Your task to perform on an android device: refresh tabs in the chrome app Image 0: 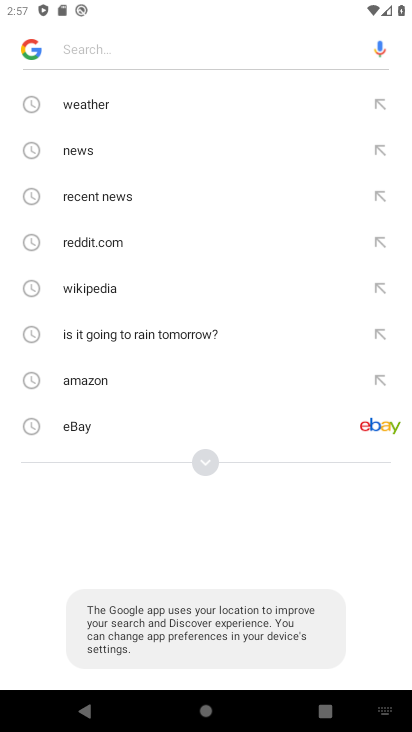
Step 0: press home button
Your task to perform on an android device: refresh tabs in the chrome app Image 1: 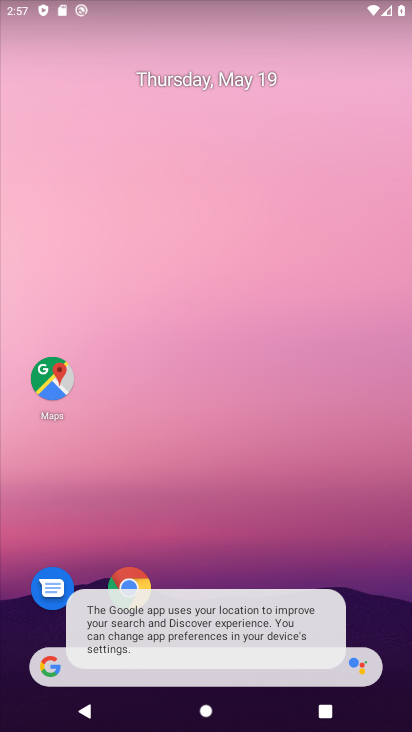
Step 1: drag from (386, 586) to (314, 78)
Your task to perform on an android device: refresh tabs in the chrome app Image 2: 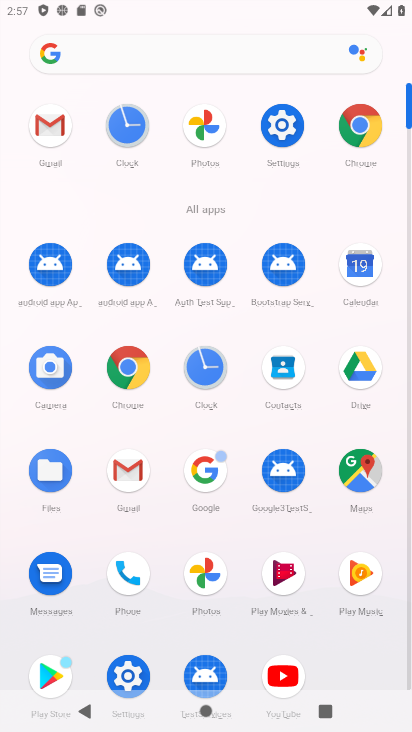
Step 2: click (130, 362)
Your task to perform on an android device: refresh tabs in the chrome app Image 3: 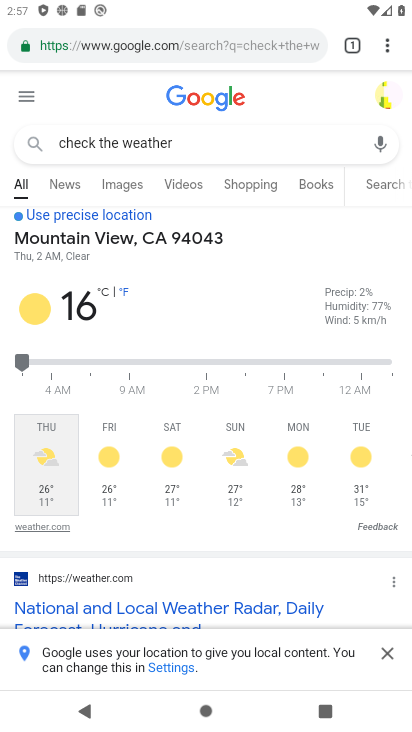
Step 3: click (389, 52)
Your task to perform on an android device: refresh tabs in the chrome app Image 4: 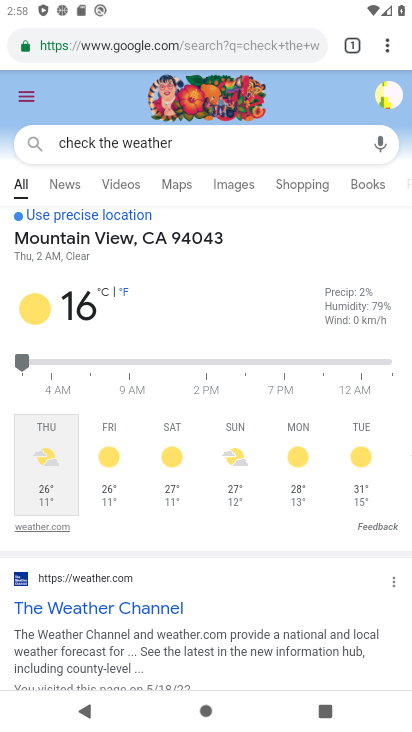
Step 4: task complete